Your task to perform on an android device: Is it going to rain today? Image 0: 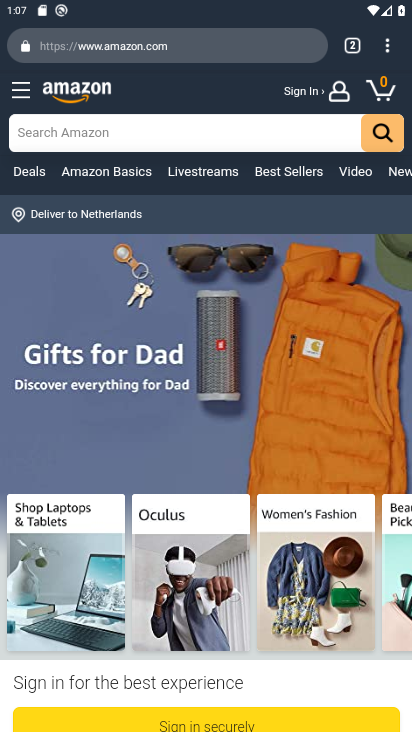
Step 0: press home button
Your task to perform on an android device: Is it going to rain today? Image 1: 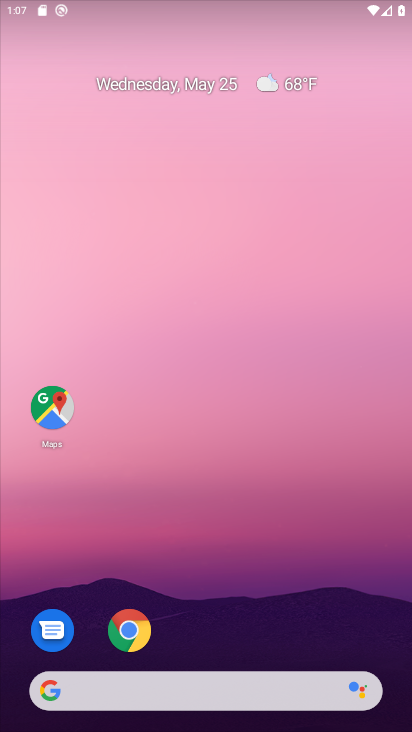
Step 1: drag from (216, 645) to (236, 200)
Your task to perform on an android device: Is it going to rain today? Image 2: 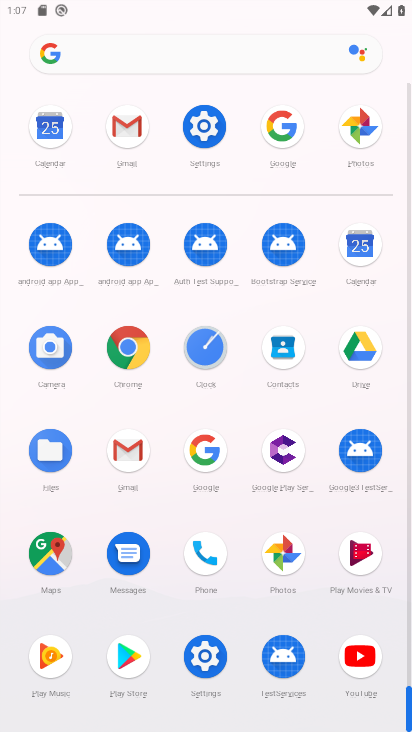
Step 2: click (272, 130)
Your task to perform on an android device: Is it going to rain today? Image 3: 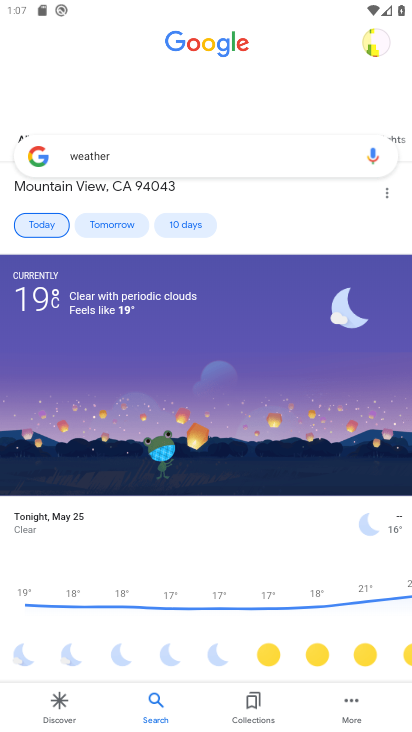
Step 3: task complete